Your task to perform on an android device: change notifications settings Image 0: 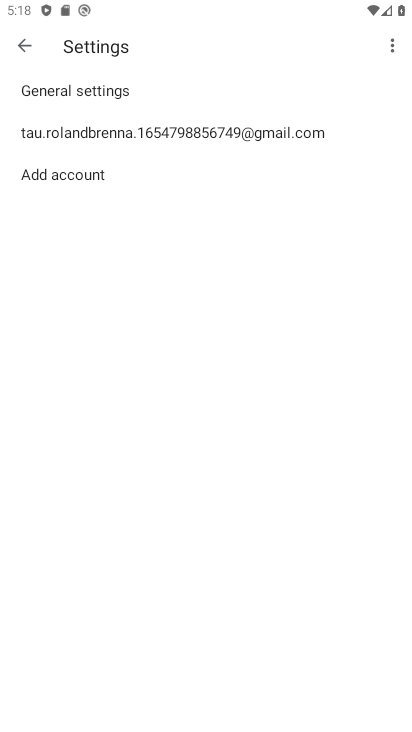
Step 0: press home button
Your task to perform on an android device: change notifications settings Image 1: 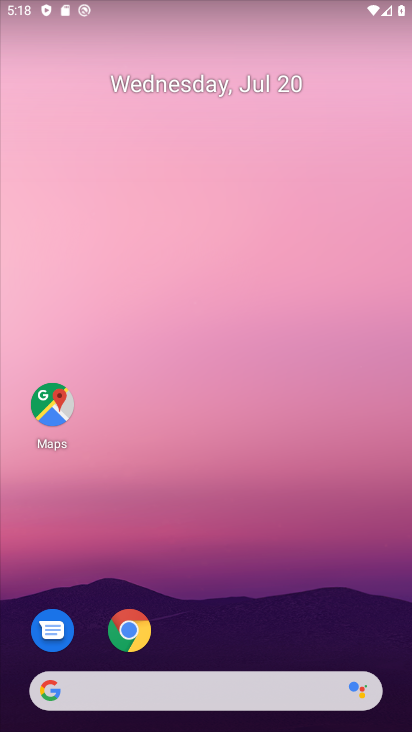
Step 1: drag from (292, 683) to (336, 121)
Your task to perform on an android device: change notifications settings Image 2: 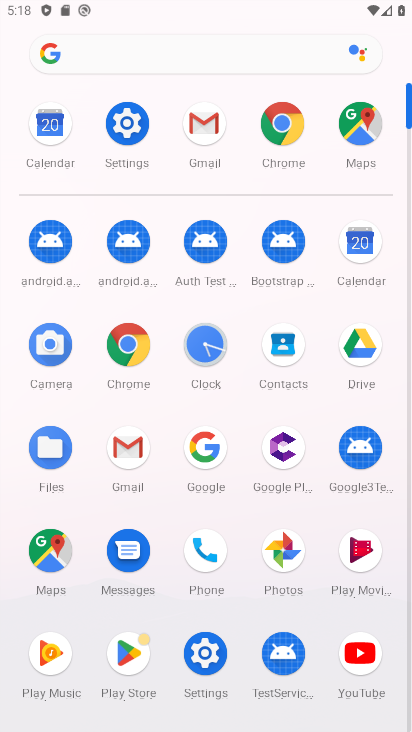
Step 2: click (125, 132)
Your task to perform on an android device: change notifications settings Image 3: 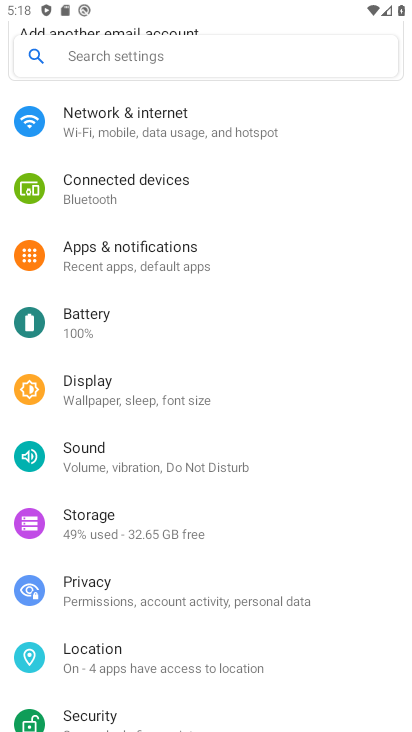
Step 3: click (156, 261)
Your task to perform on an android device: change notifications settings Image 4: 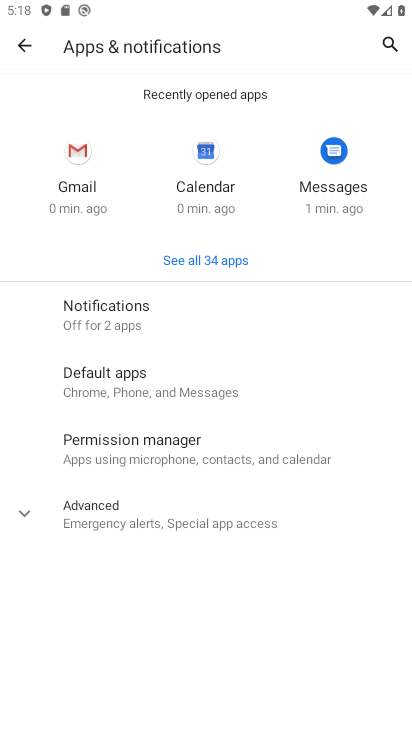
Step 4: click (141, 311)
Your task to perform on an android device: change notifications settings Image 5: 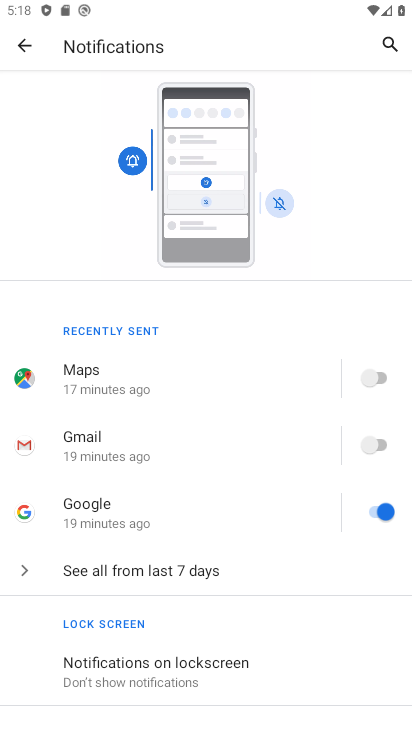
Step 5: drag from (192, 648) to (238, 353)
Your task to perform on an android device: change notifications settings Image 6: 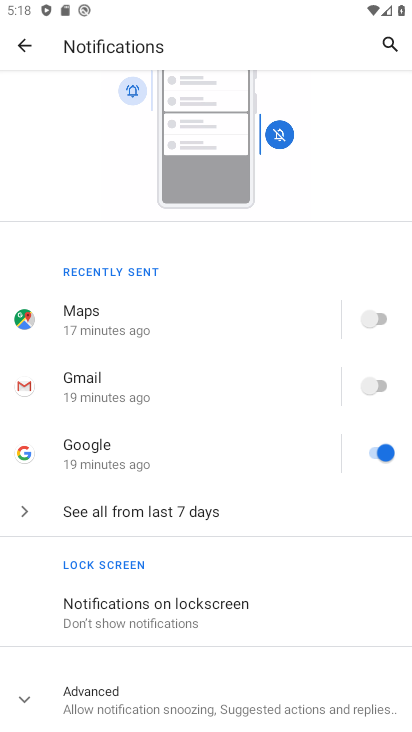
Step 6: click (157, 706)
Your task to perform on an android device: change notifications settings Image 7: 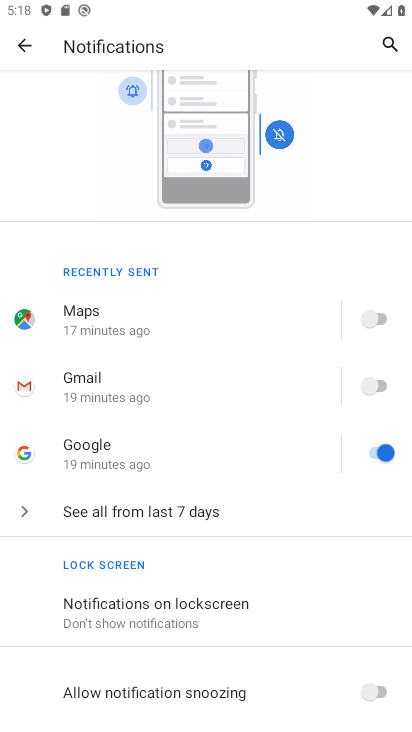
Step 7: click (376, 450)
Your task to perform on an android device: change notifications settings Image 8: 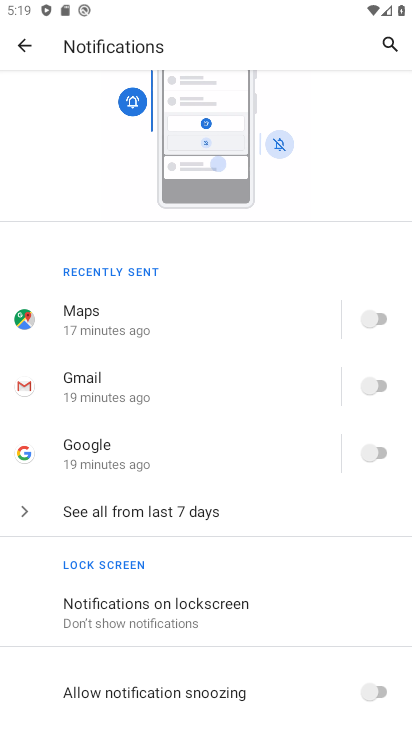
Step 8: task complete